Your task to perform on an android device: see creations saved in the google photos Image 0: 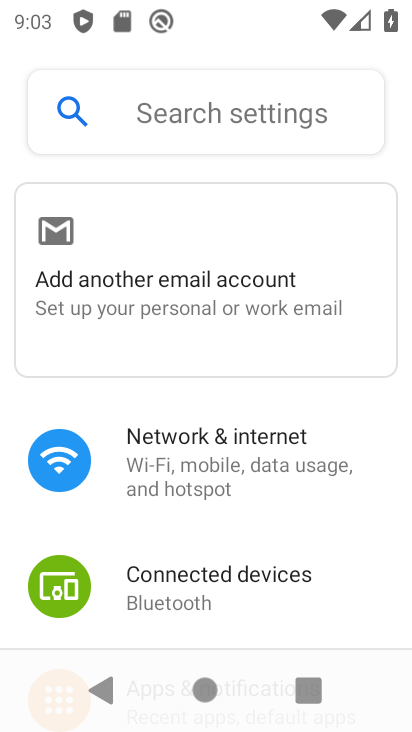
Step 0: press home button
Your task to perform on an android device: see creations saved in the google photos Image 1: 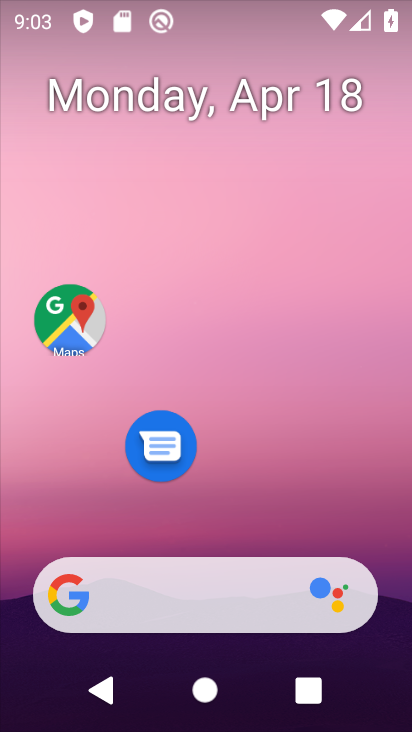
Step 1: drag from (221, 516) to (257, 0)
Your task to perform on an android device: see creations saved in the google photos Image 2: 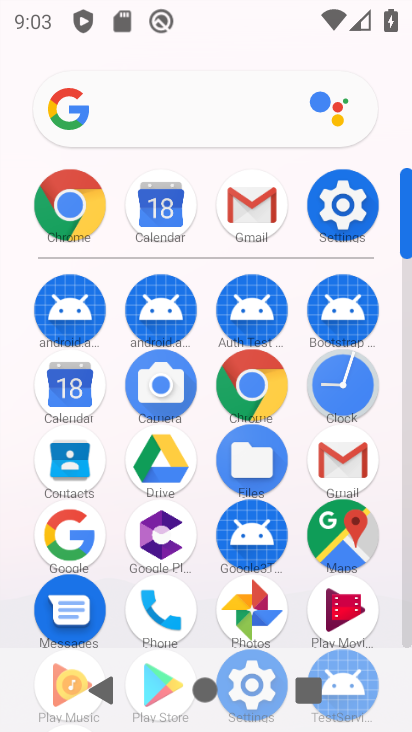
Step 2: click (252, 591)
Your task to perform on an android device: see creations saved in the google photos Image 3: 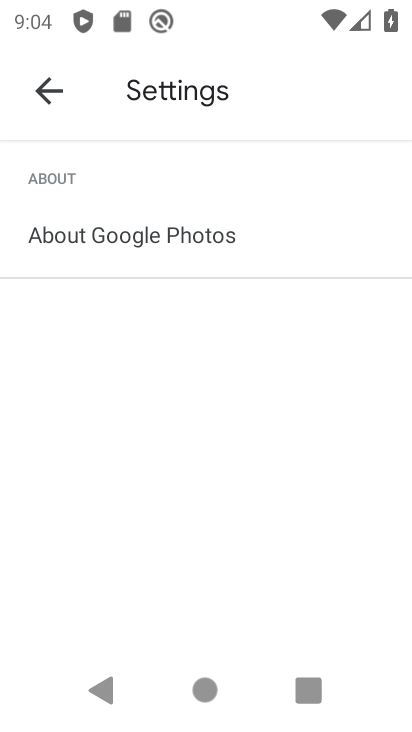
Step 3: click (59, 97)
Your task to perform on an android device: see creations saved in the google photos Image 4: 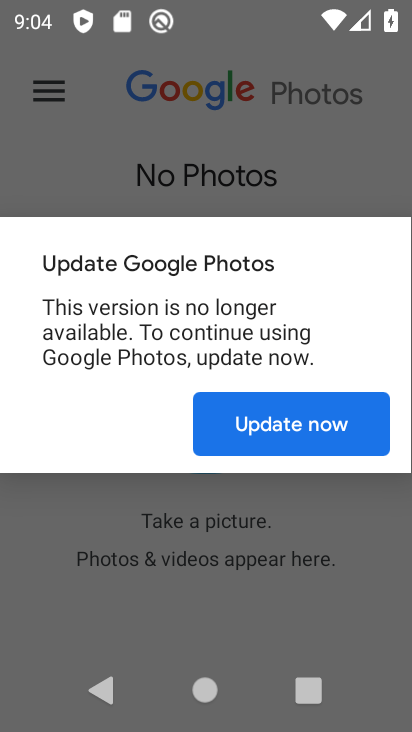
Step 4: click (272, 421)
Your task to perform on an android device: see creations saved in the google photos Image 5: 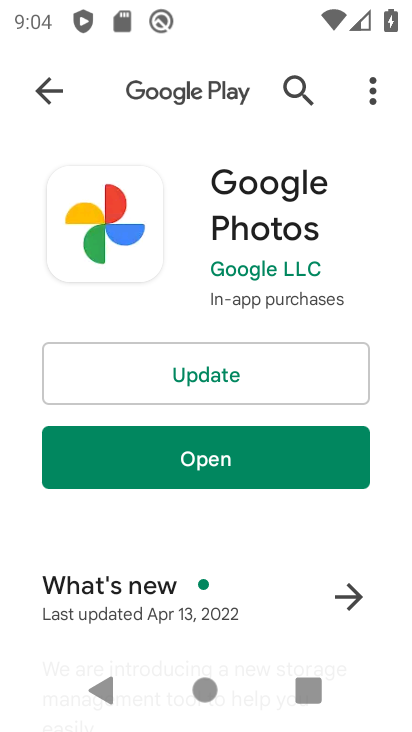
Step 5: click (217, 377)
Your task to perform on an android device: see creations saved in the google photos Image 6: 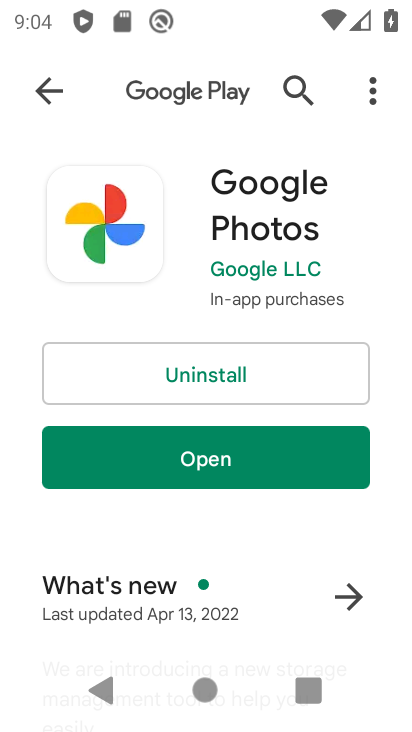
Step 6: click (203, 460)
Your task to perform on an android device: see creations saved in the google photos Image 7: 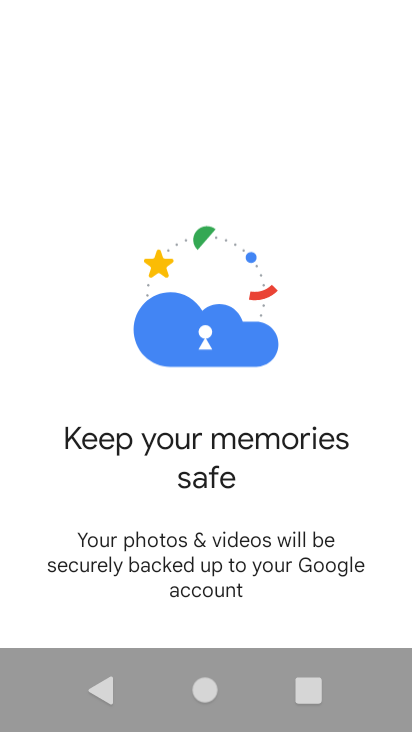
Step 7: drag from (299, 587) to (300, 223)
Your task to perform on an android device: see creations saved in the google photos Image 8: 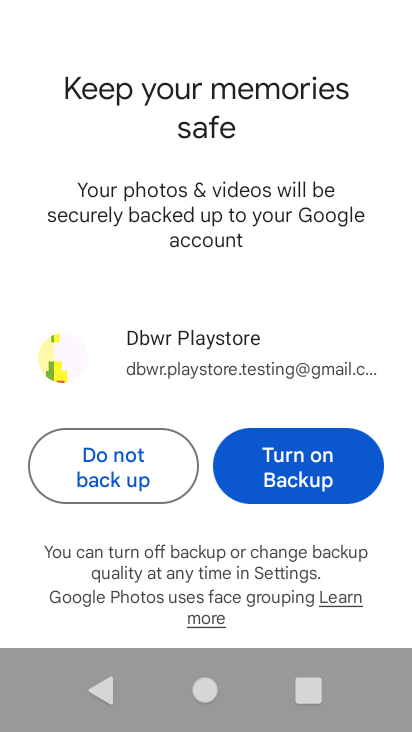
Step 8: click (293, 476)
Your task to perform on an android device: see creations saved in the google photos Image 9: 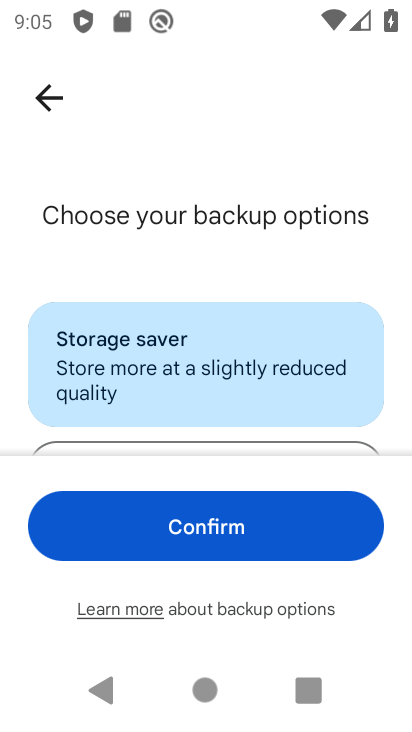
Step 9: click (212, 530)
Your task to perform on an android device: see creations saved in the google photos Image 10: 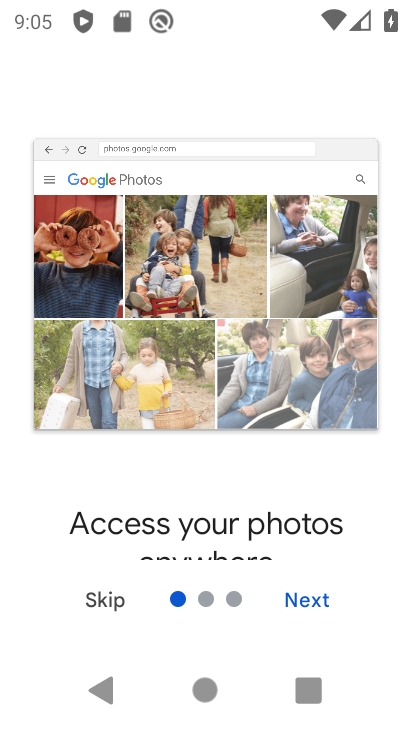
Step 10: click (299, 601)
Your task to perform on an android device: see creations saved in the google photos Image 11: 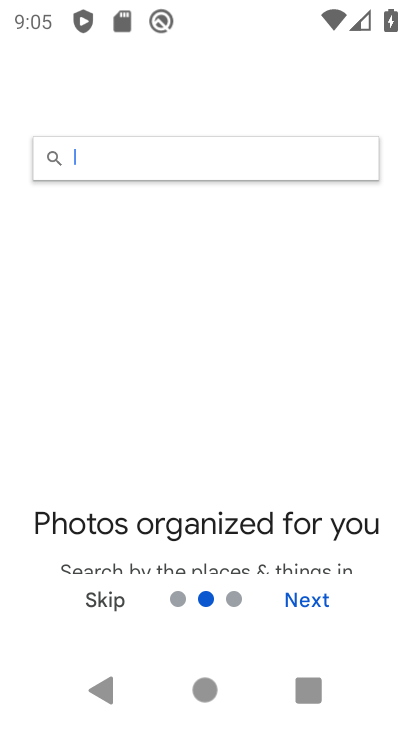
Step 11: click (303, 602)
Your task to perform on an android device: see creations saved in the google photos Image 12: 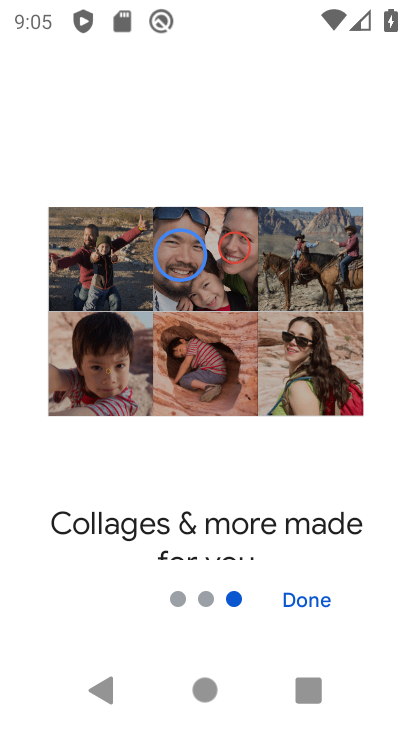
Step 12: click (303, 602)
Your task to perform on an android device: see creations saved in the google photos Image 13: 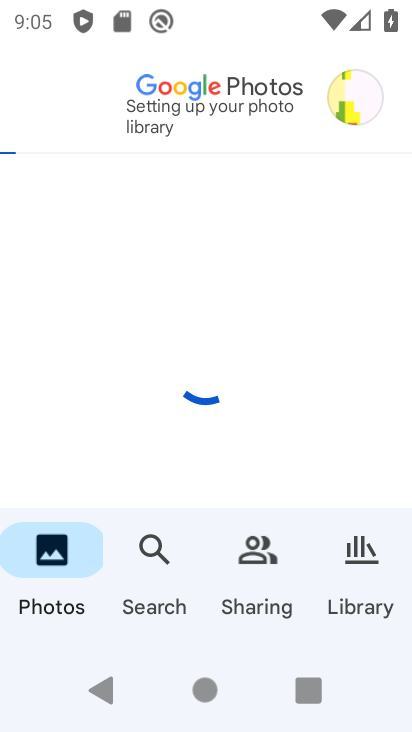
Step 13: click (159, 548)
Your task to perform on an android device: see creations saved in the google photos Image 14: 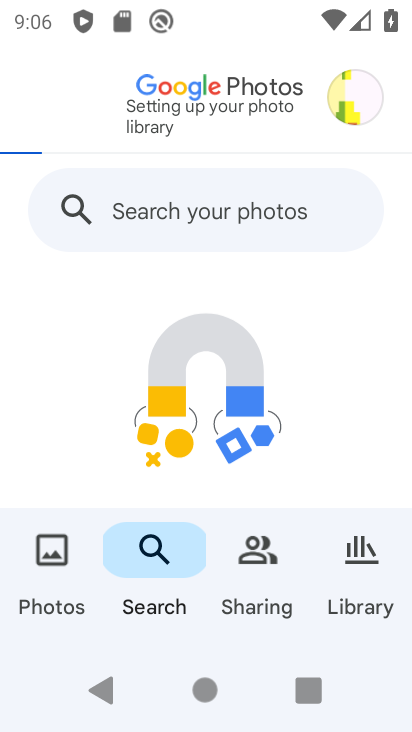
Step 14: click (148, 545)
Your task to perform on an android device: see creations saved in the google photos Image 15: 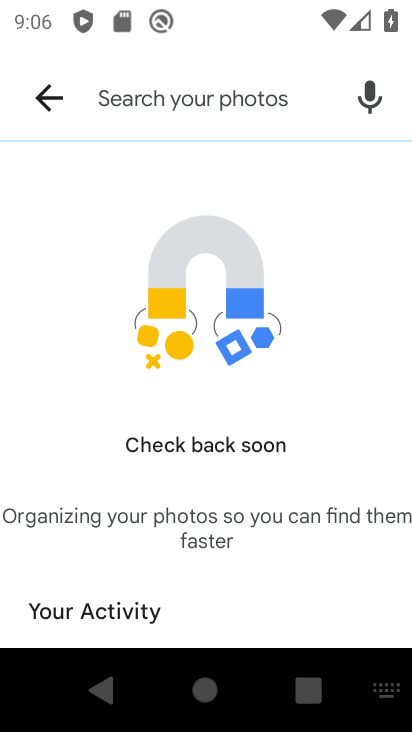
Step 15: drag from (157, 550) to (188, 172)
Your task to perform on an android device: see creations saved in the google photos Image 16: 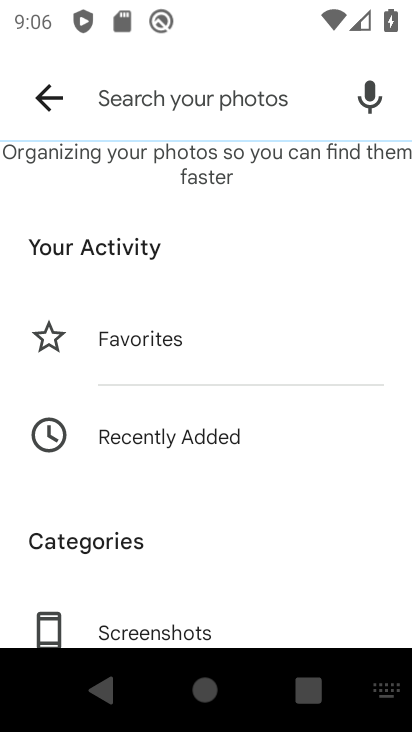
Step 16: drag from (148, 562) to (176, 206)
Your task to perform on an android device: see creations saved in the google photos Image 17: 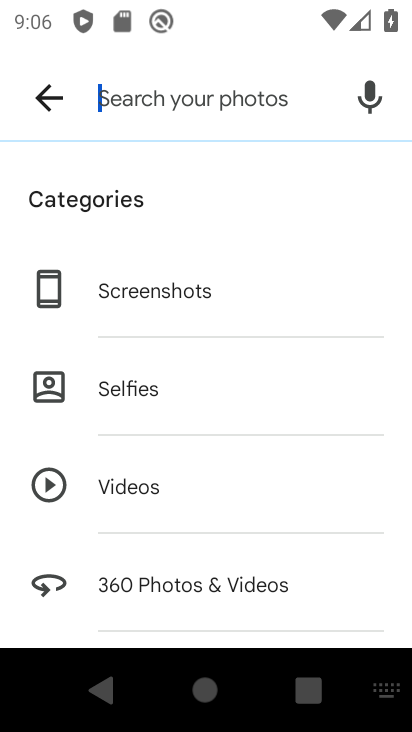
Step 17: drag from (151, 566) to (179, 162)
Your task to perform on an android device: see creations saved in the google photos Image 18: 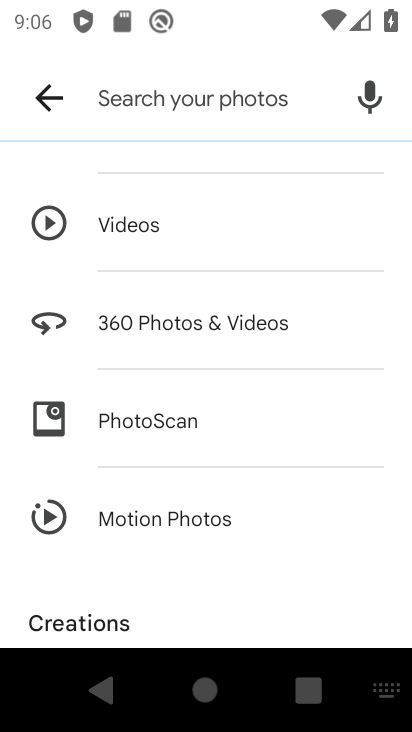
Step 18: drag from (156, 578) to (175, 239)
Your task to perform on an android device: see creations saved in the google photos Image 19: 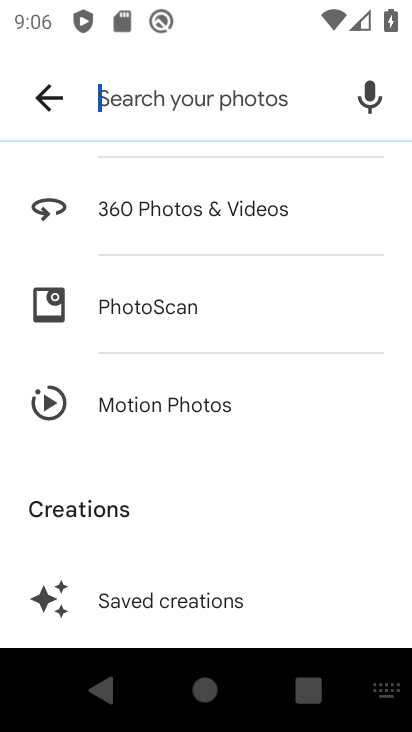
Step 19: click (134, 607)
Your task to perform on an android device: see creations saved in the google photos Image 20: 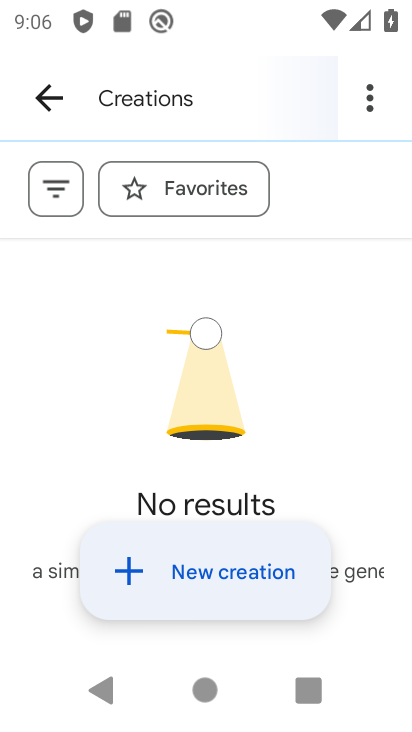
Step 20: task complete